Your task to perform on an android device: Open Google Chrome Image 0: 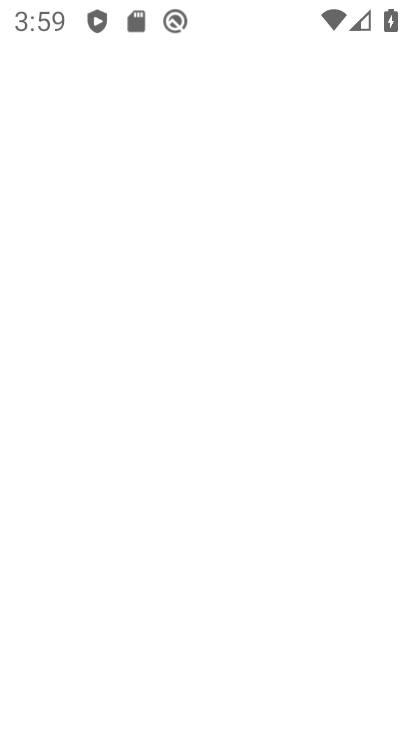
Step 0: drag from (342, 589) to (329, 23)
Your task to perform on an android device: Open Google Chrome Image 1: 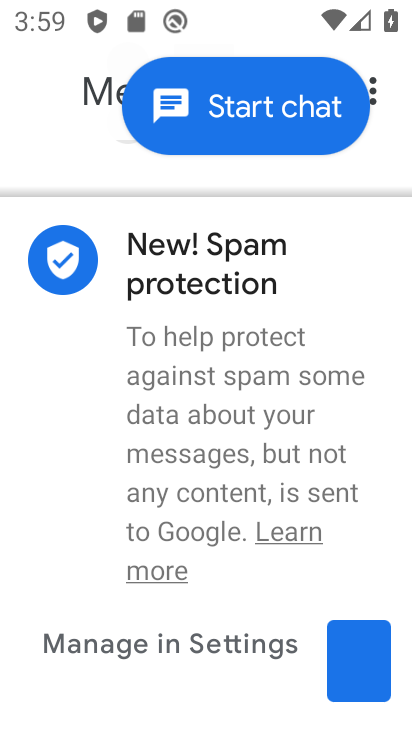
Step 1: press home button
Your task to perform on an android device: Open Google Chrome Image 2: 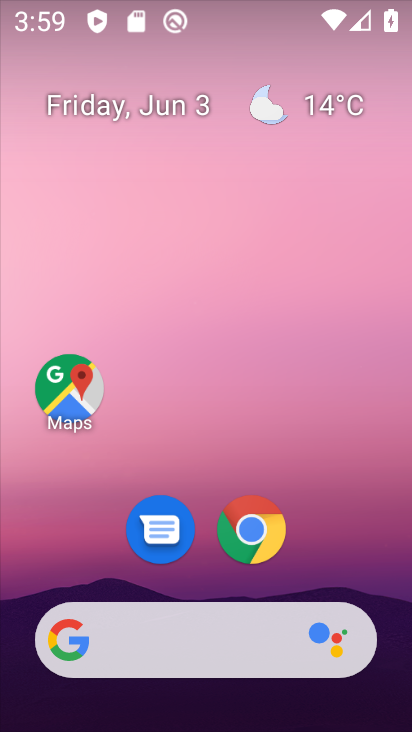
Step 2: drag from (334, 576) to (323, 64)
Your task to perform on an android device: Open Google Chrome Image 3: 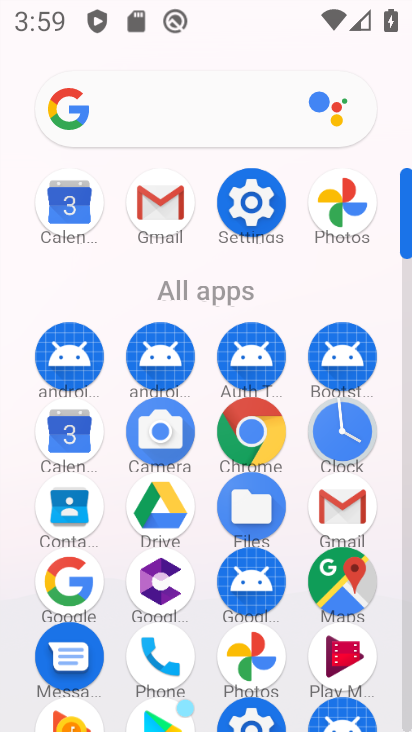
Step 3: click (250, 451)
Your task to perform on an android device: Open Google Chrome Image 4: 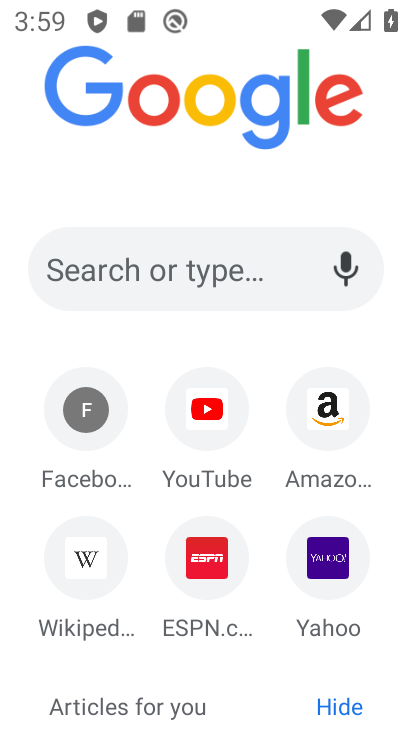
Step 4: task complete